Your task to perform on an android device: turn on notifications settings in the gmail app Image 0: 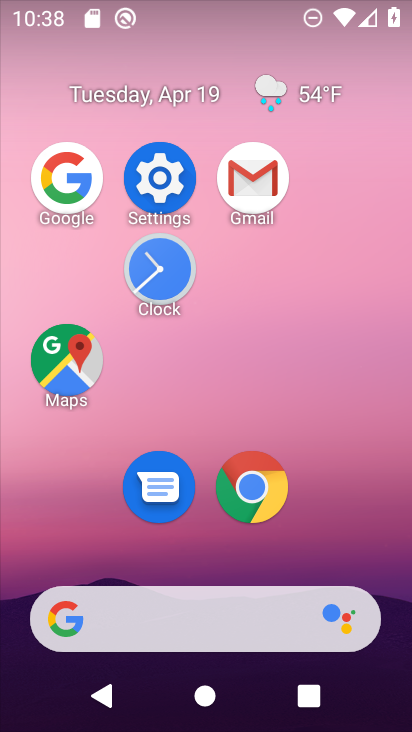
Step 0: click (261, 166)
Your task to perform on an android device: turn on notifications settings in the gmail app Image 1: 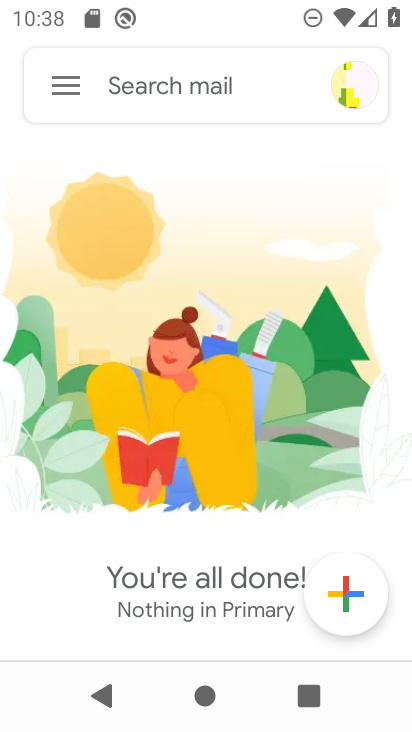
Step 1: click (71, 84)
Your task to perform on an android device: turn on notifications settings in the gmail app Image 2: 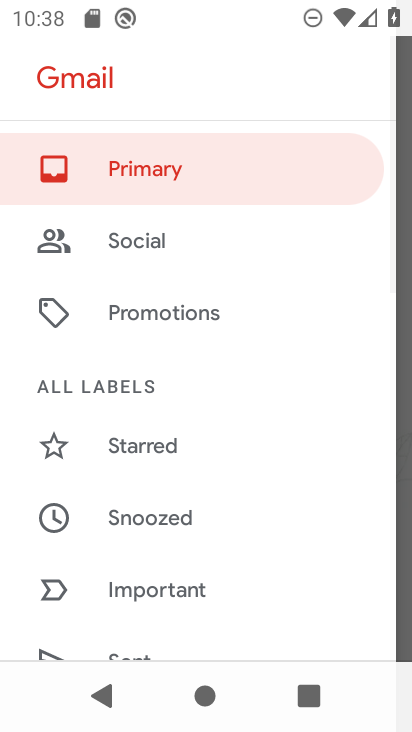
Step 2: drag from (143, 570) to (232, 133)
Your task to perform on an android device: turn on notifications settings in the gmail app Image 3: 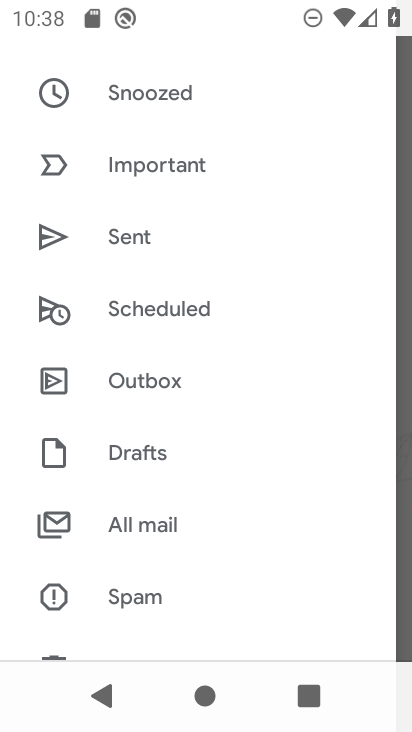
Step 3: drag from (300, 564) to (299, 141)
Your task to perform on an android device: turn on notifications settings in the gmail app Image 4: 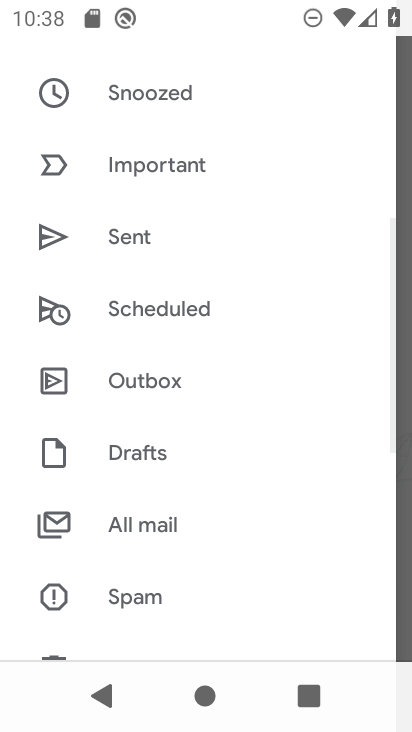
Step 4: drag from (191, 576) to (228, 166)
Your task to perform on an android device: turn on notifications settings in the gmail app Image 5: 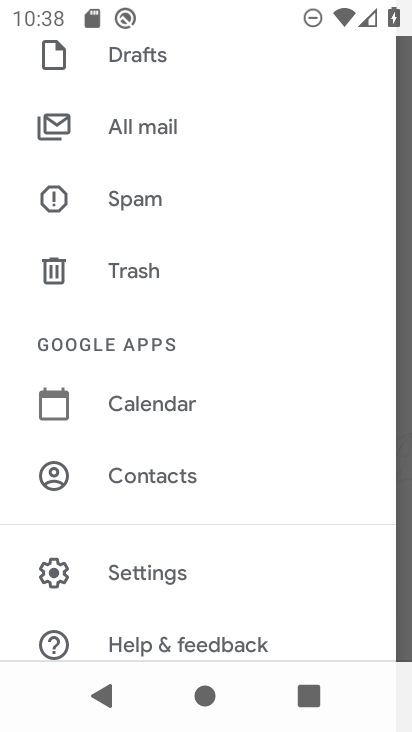
Step 5: click (191, 564)
Your task to perform on an android device: turn on notifications settings in the gmail app Image 6: 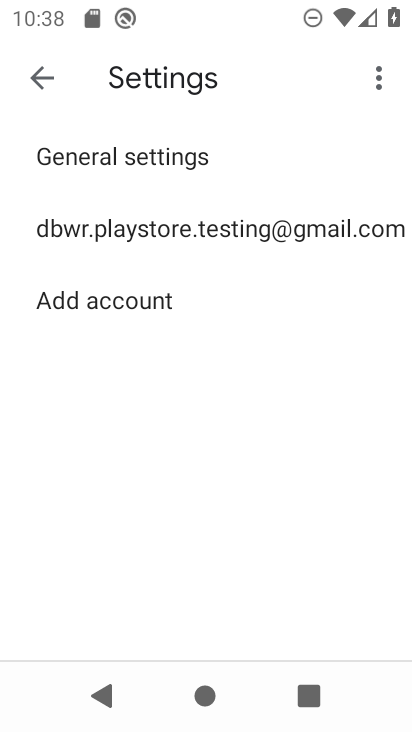
Step 6: click (254, 224)
Your task to perform on an android device: turn on notifications settings in the gmail app Image 7: 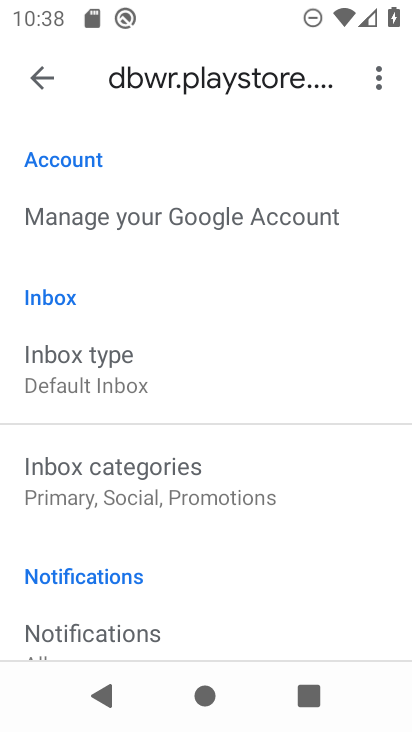
Step 7: drag from (162, 551) to (157, 174)
Your task to perform on an android device: turn on notifications settings in the gmail app Image 8: 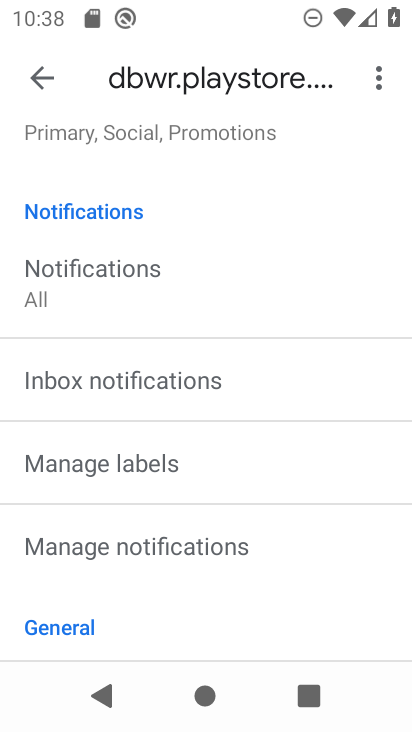
Step 8: click (172, 275)
Your task to perform on an android device: turn on notifications settings in the gmail app Image 9: 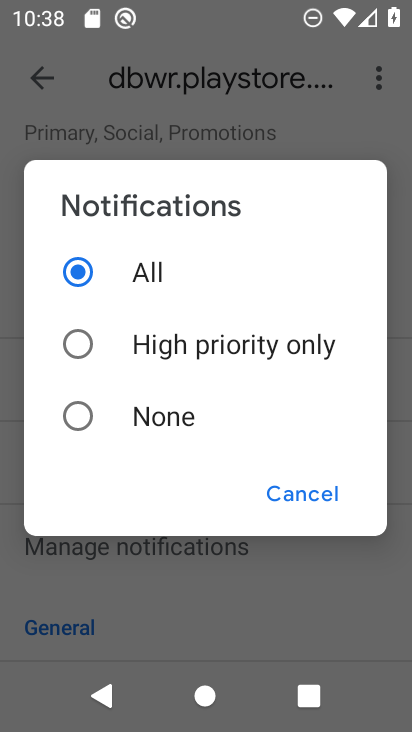
Step 9: task complete